Your task to perform on an android device: open a bookmark in the chrome app Image 0: 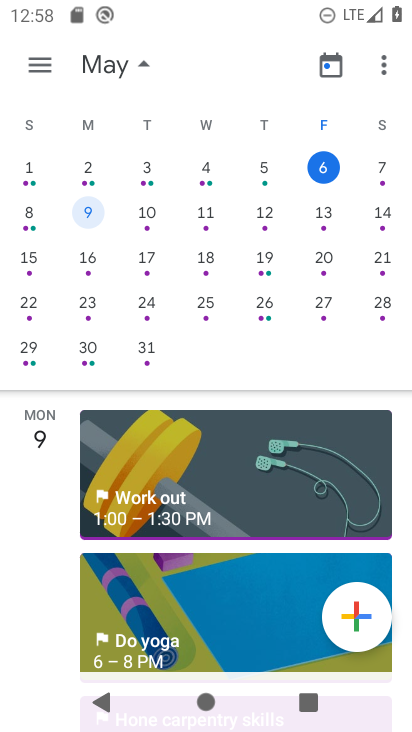
Step 0: press home button
Your task to perform on an android device: open a bookmark in the chrome app Image 1: 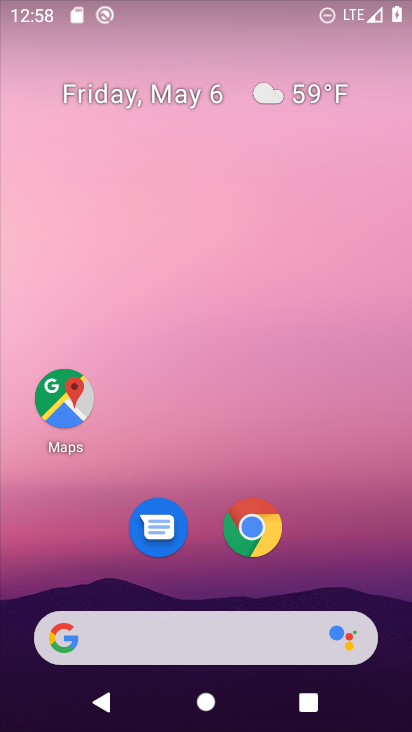
Step 1: click (250, 530)
Your task to perform on an android device: open a bookmark in the chrome app Image 2: 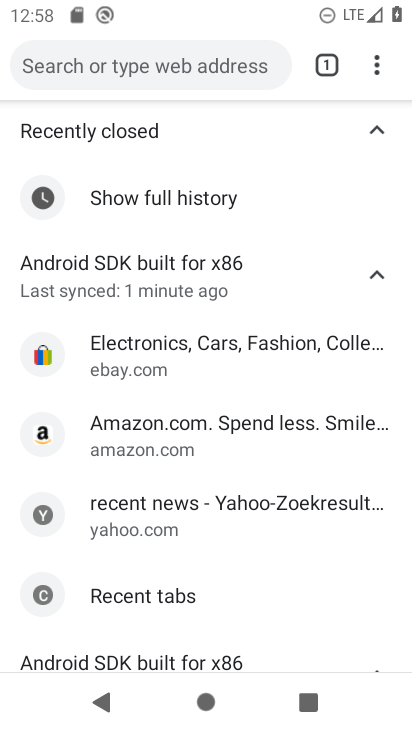
Step 2: click (381, 68)
Your task to perform on an android device: open a bookmark in the chrome app Image 3: 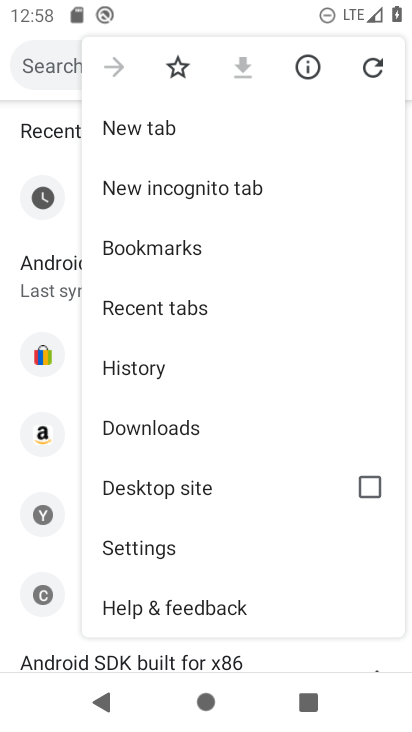
Step 3: click (172, 252)
Your task to perform on an android device: open a bookmark in the chrome app Image 4: 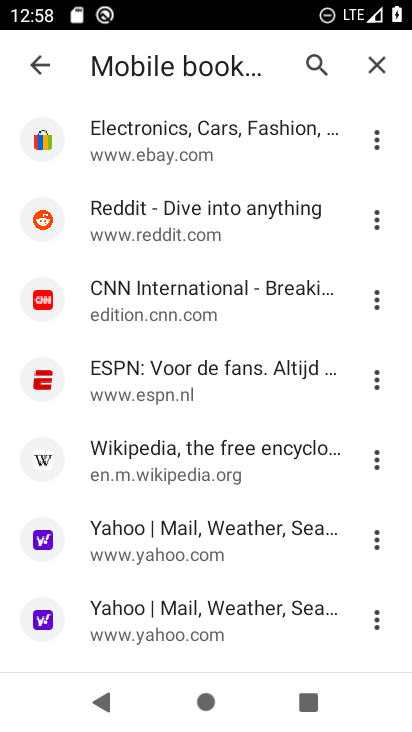
Step 4: task complete